Your task to perform on an android device: find photos in the google photos app Image 0: 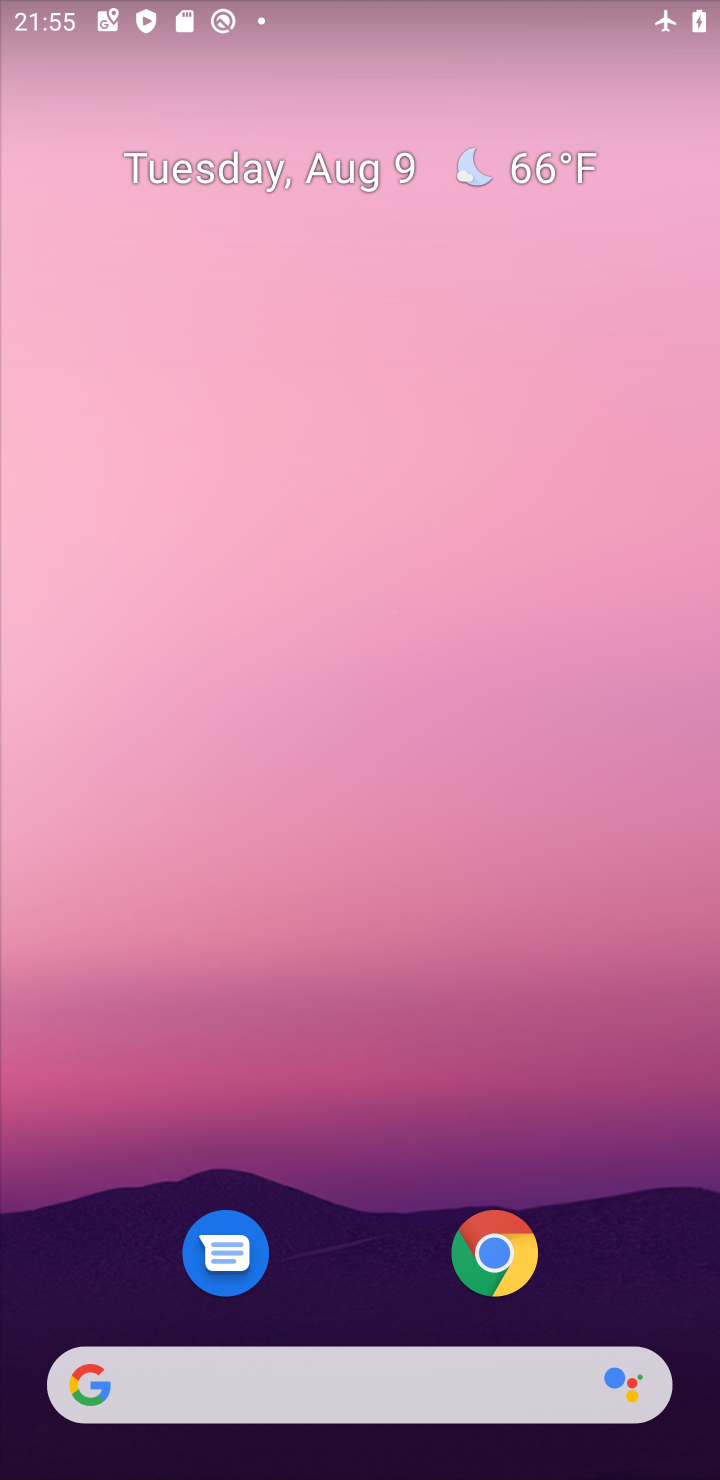
Step 0: press home button
Your task to perform on an android device: find photos in the google photos app Image 1: 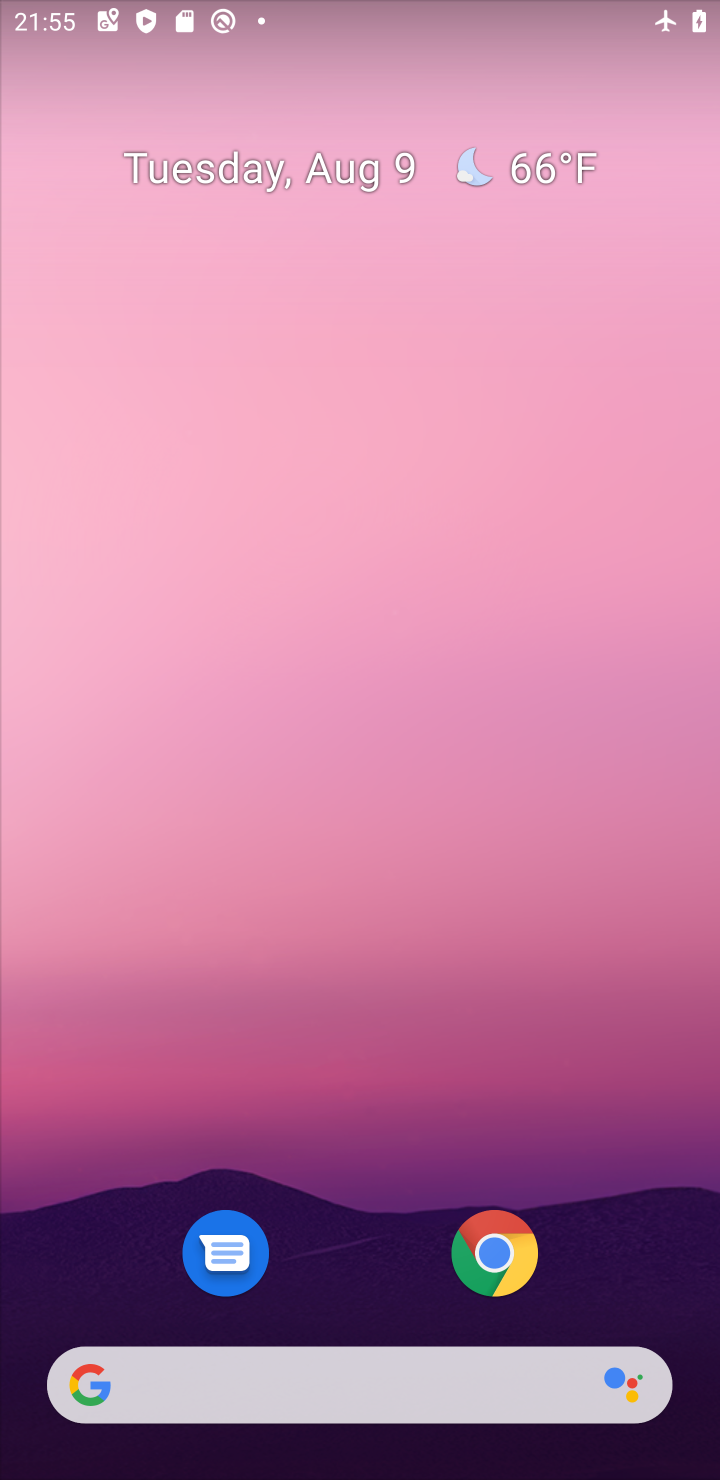
Step 1: press home button
Your task to perform on an android device: find photos in the google photos app Image 2: 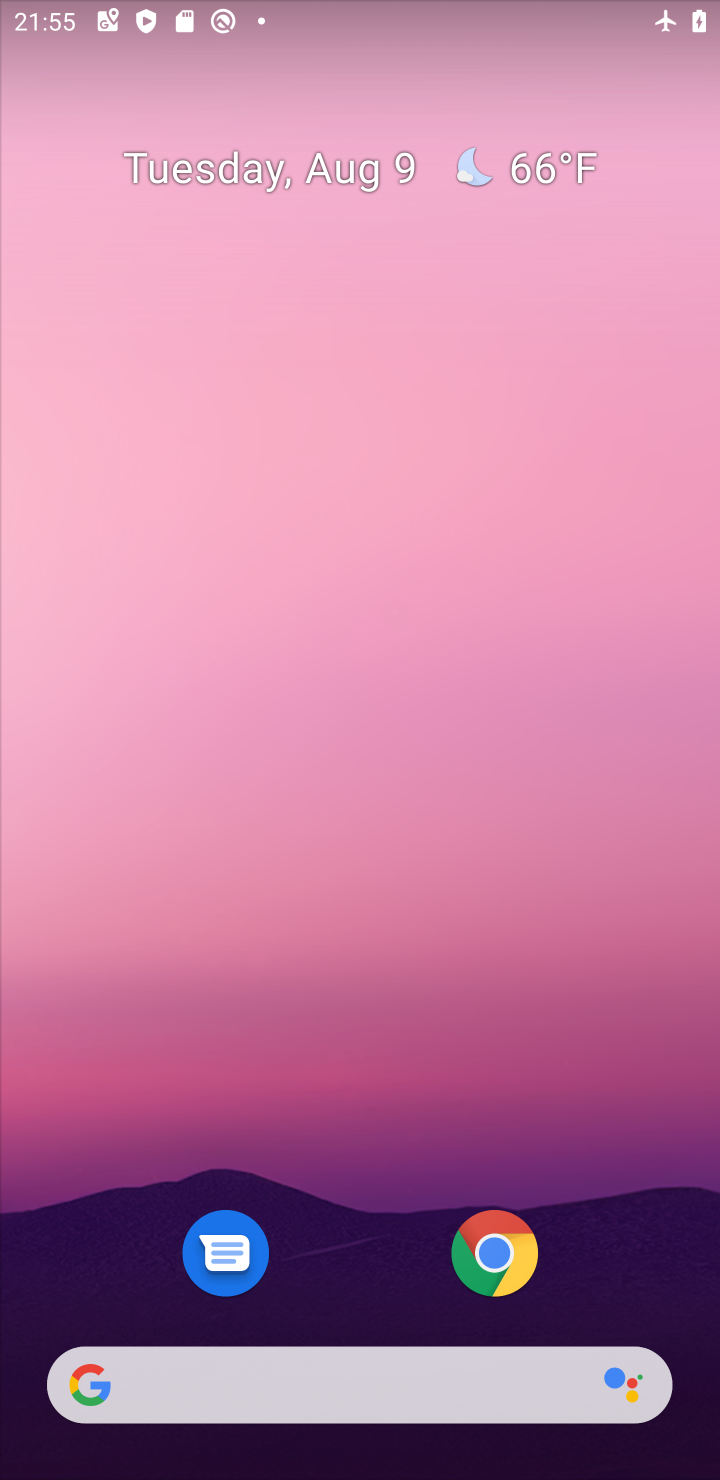
Step 2: click (403, 1275)
Your task to perform on an android device: find photos in the google photos app Image 3: 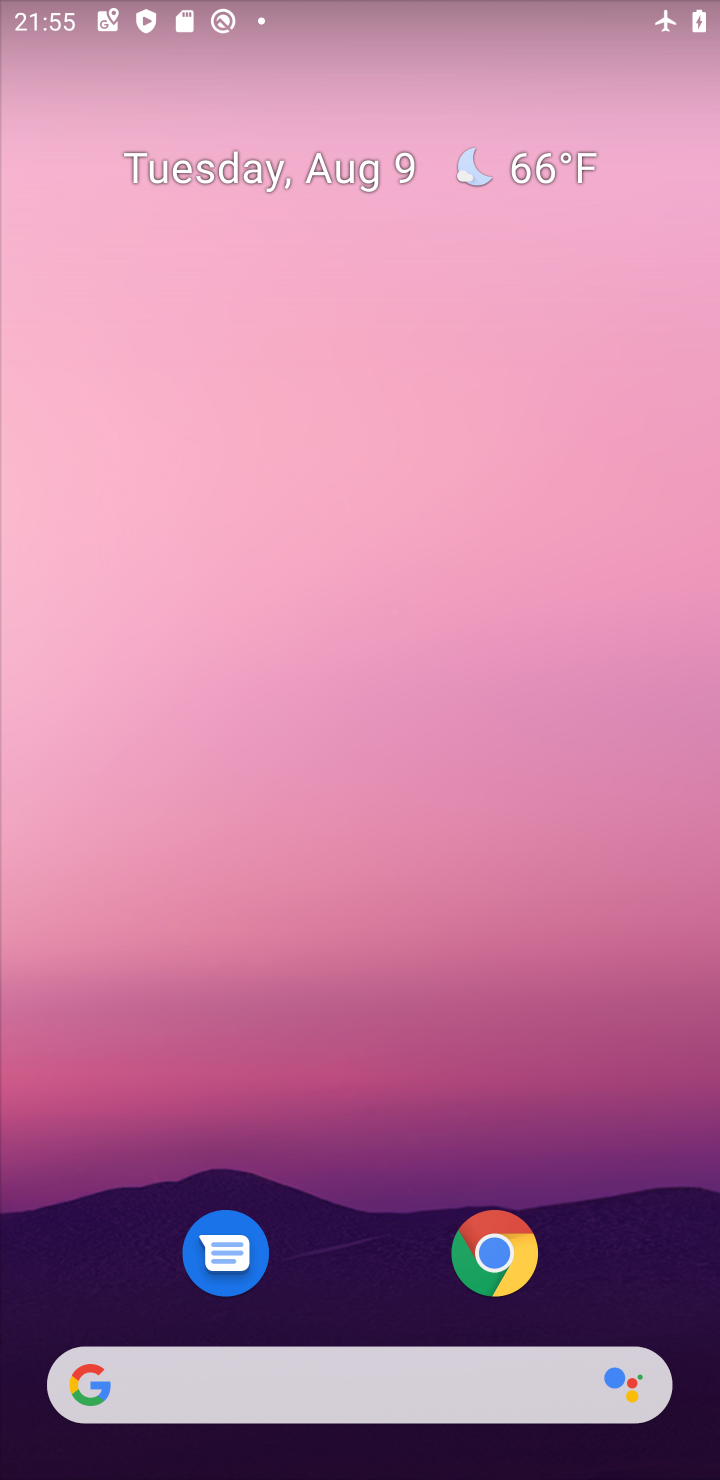
Step 3: drag from (396, 1239) to (623, 164)
Your task to perform on an android device: find photos in the google photos app Image 4: 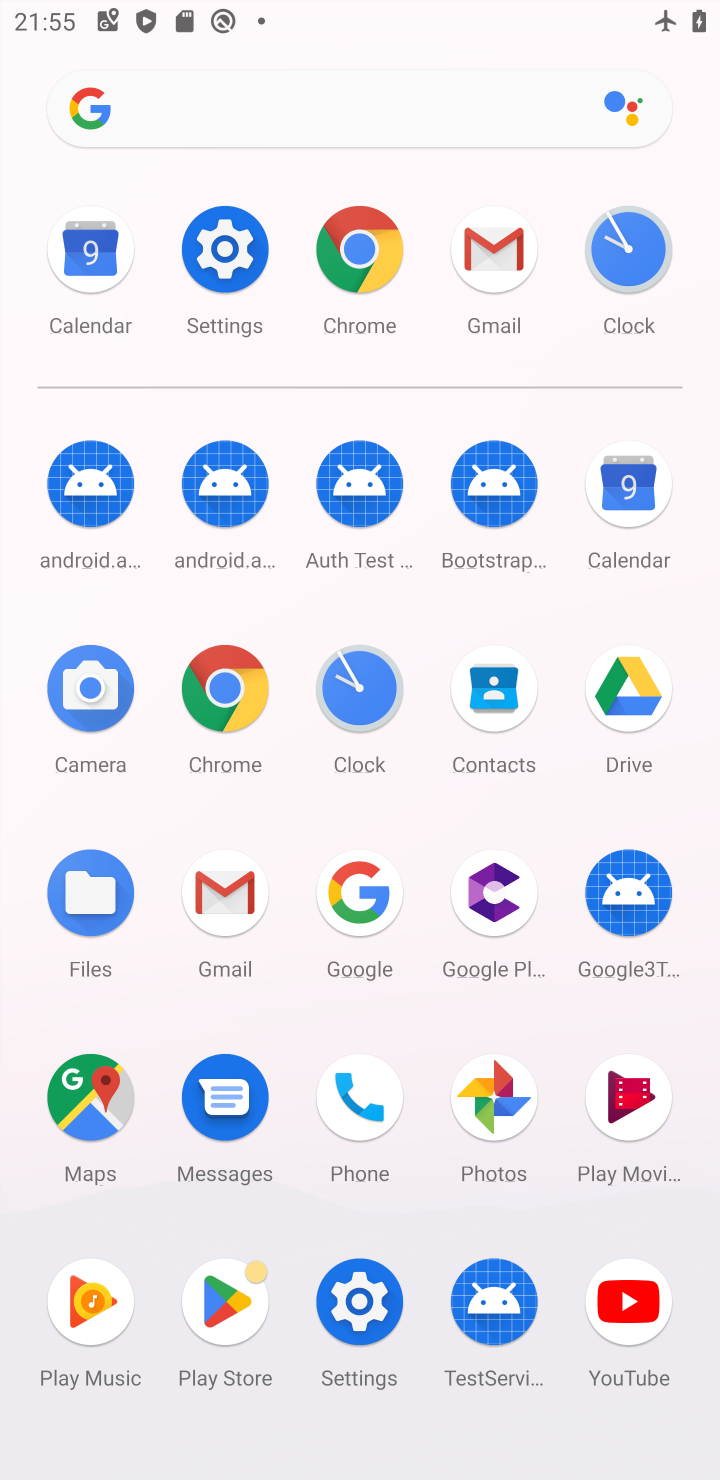
Step 4: click (496, 1095)
Your task to perform on an android device: find photos in the google photos app Image 5: 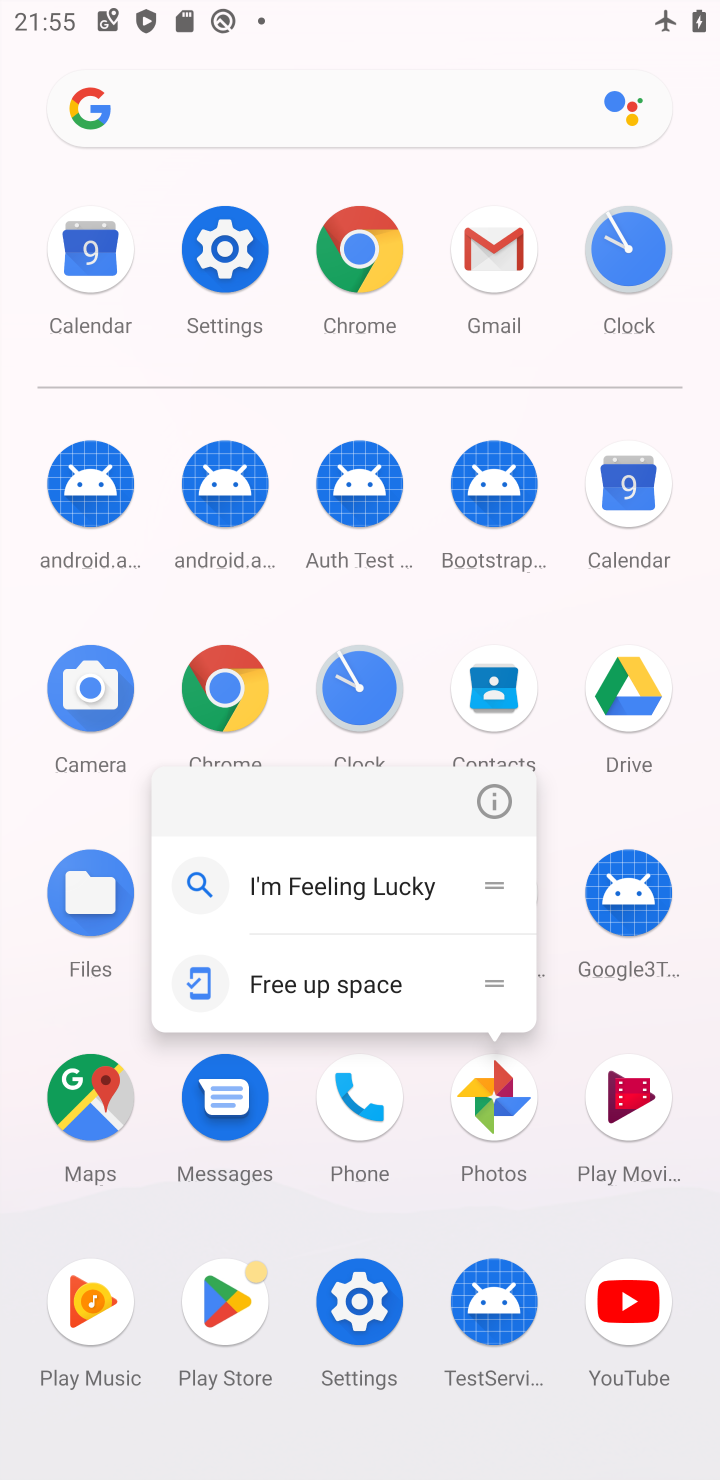
Step 5: click (496, 1095)
Your task to perform on an android device: find photos in the google photos app Image 6: 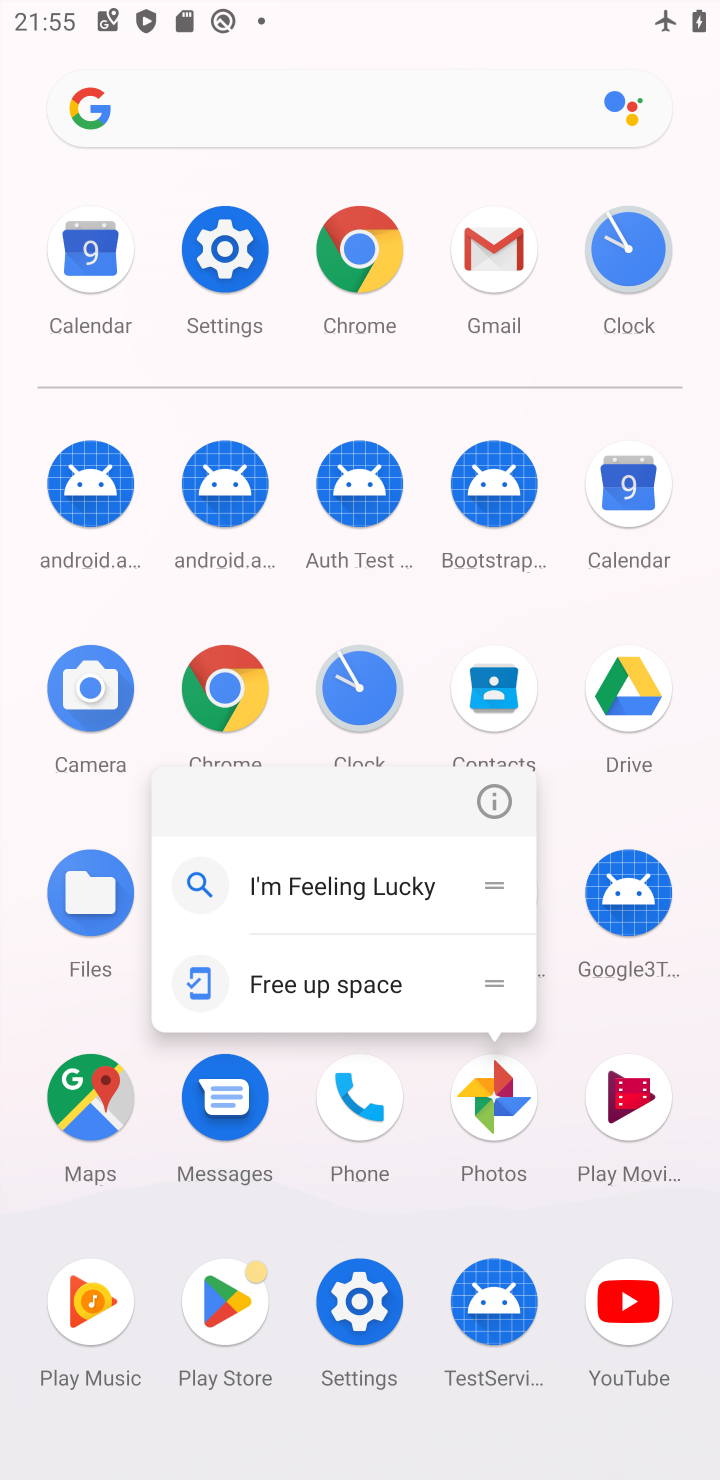
Step 6: click (496, 1095)
Your task to perform on an android device: find photos in the google photos app Image 7: 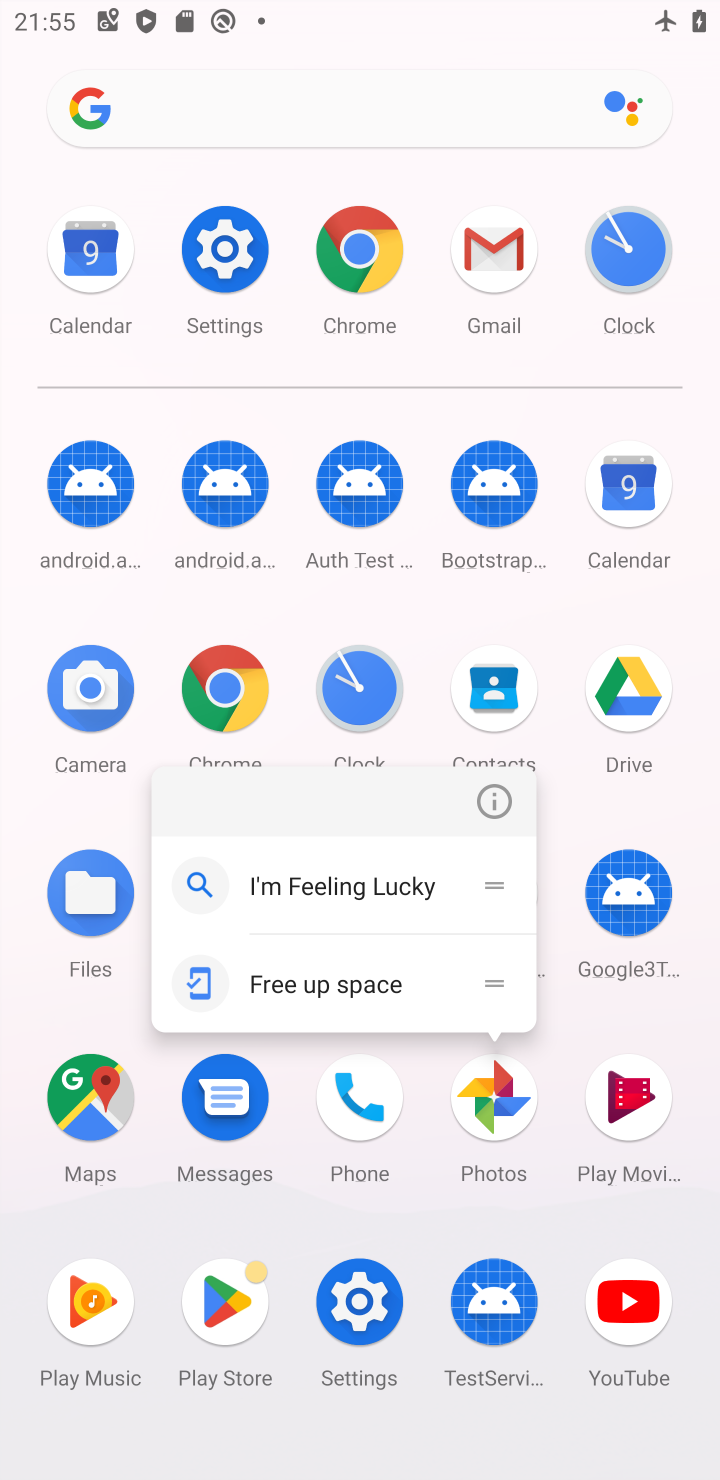
Step 7: click (569, 1022)
Your task to perform on an android device: find photos in the google photos app Image 8: 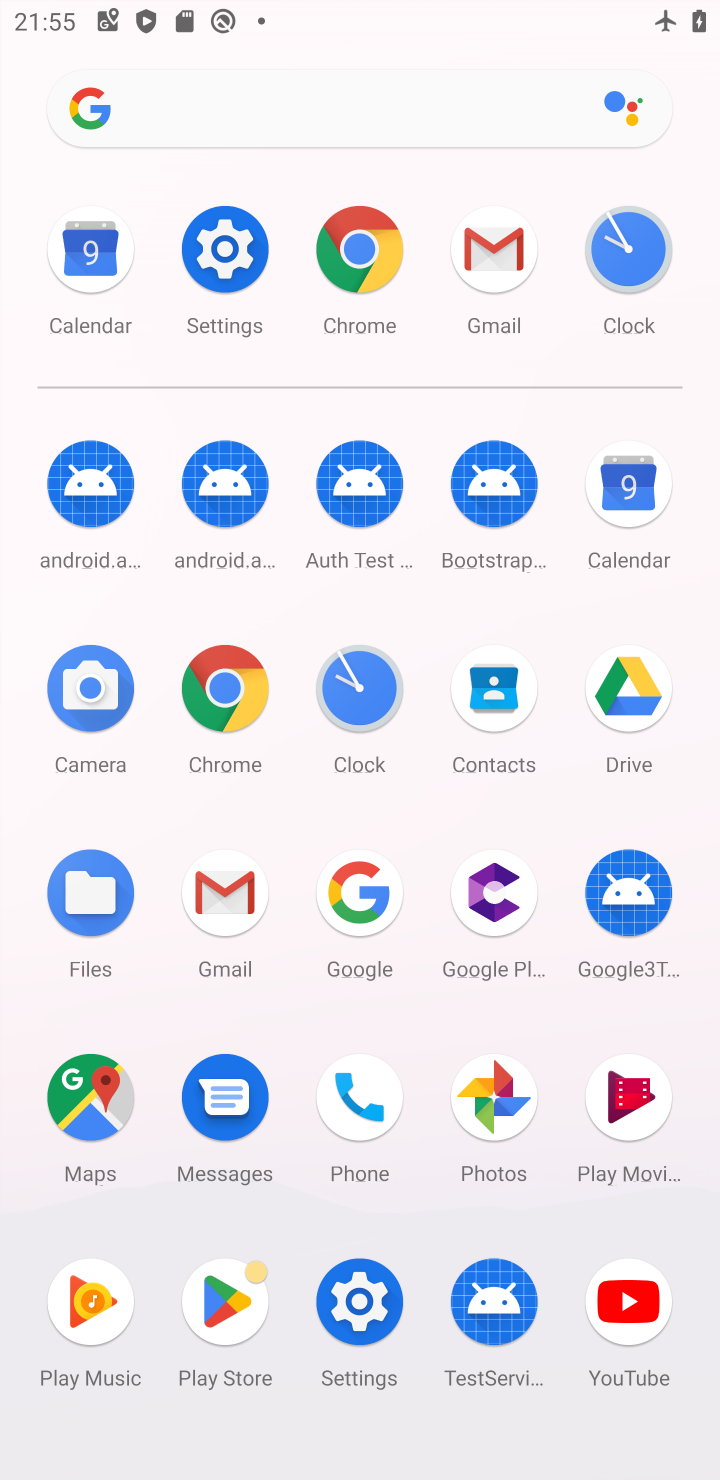
Step 8: click (494, 1098)
Your task to perform on an android device: find photos in the google photos app Image 9: 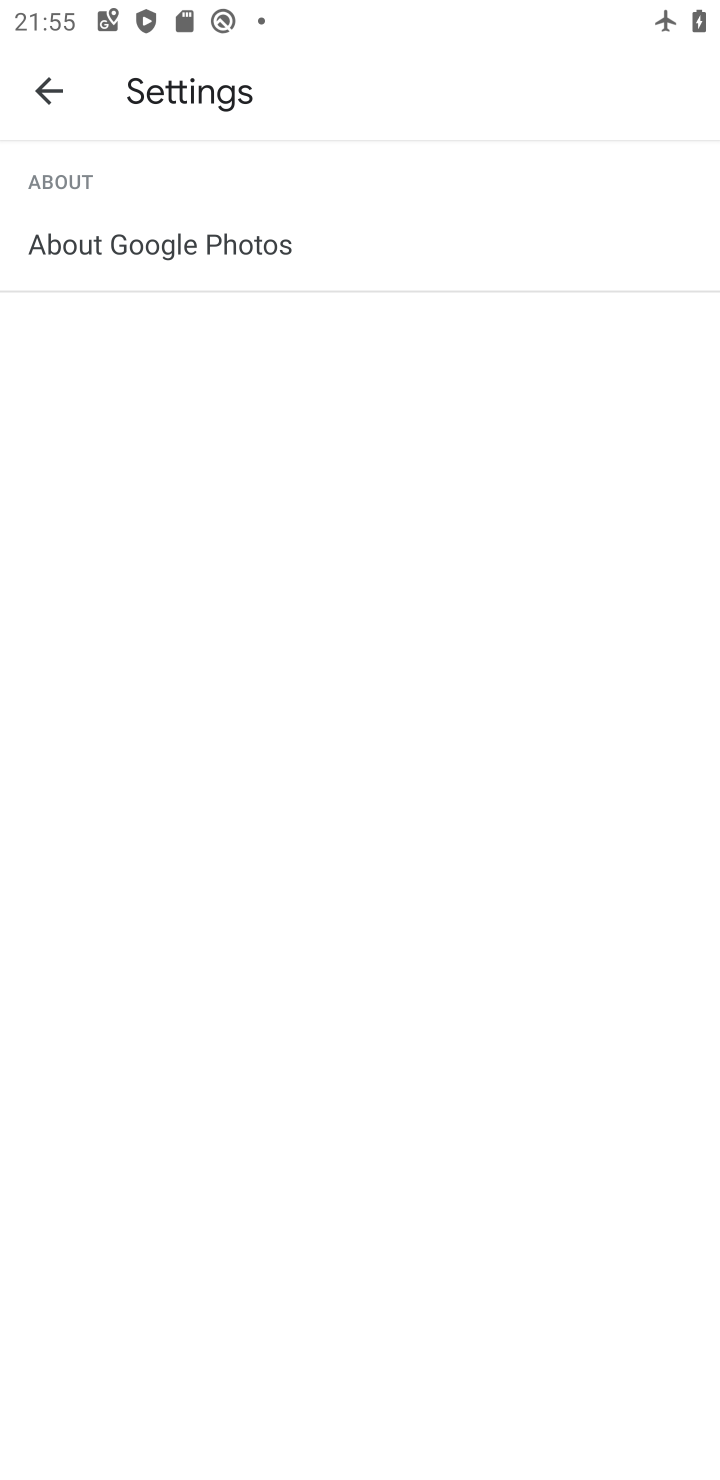
Step 9: click (50, 101)
Your task to perform on an android device: find photos in the google photos app Image 10: 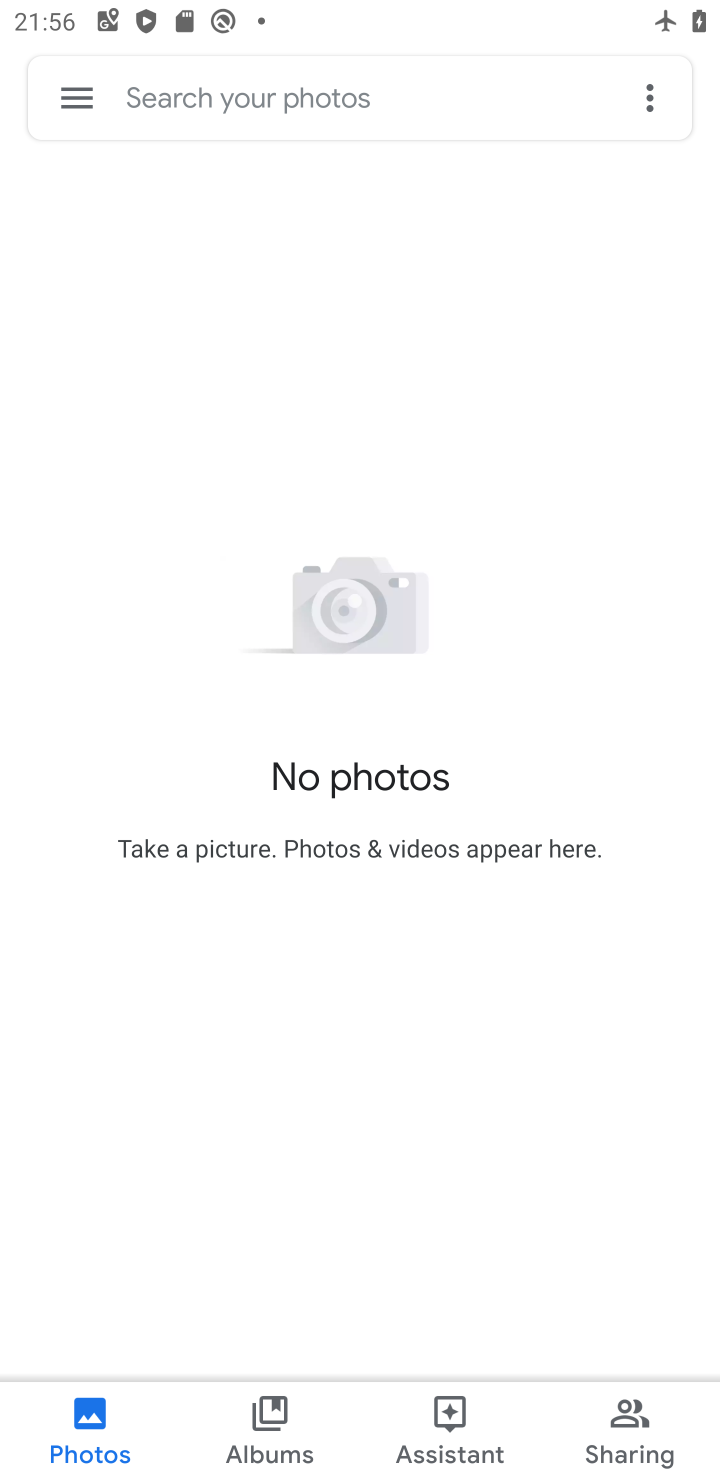
Step 10: task complete